Your task to perform on an android device: all mails in gmail Image 0: 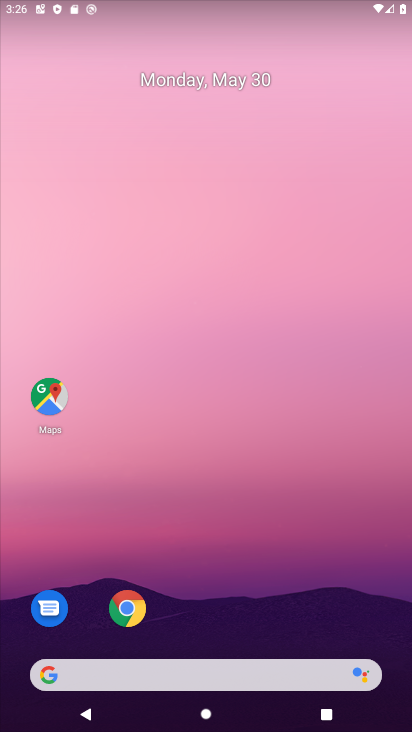
Step 0: drag from (233, 567) to (227, 259)
Your task to perform on an android device: all mails in gmail Image 1: 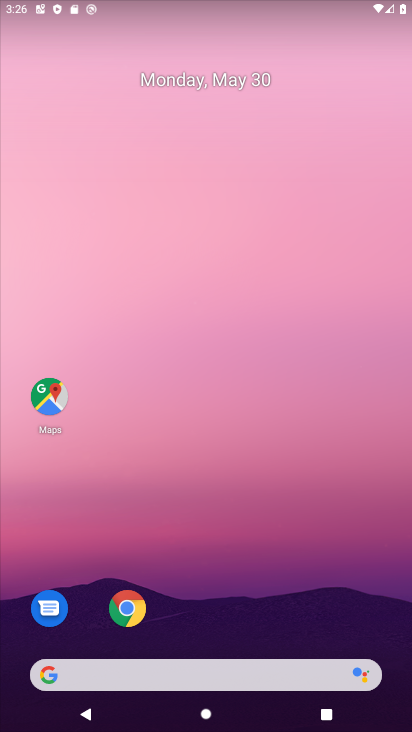
Step 1: drag from (241, 603) to (209, 129)
Your task to perform on an android device: all mails in gmail Image 2: 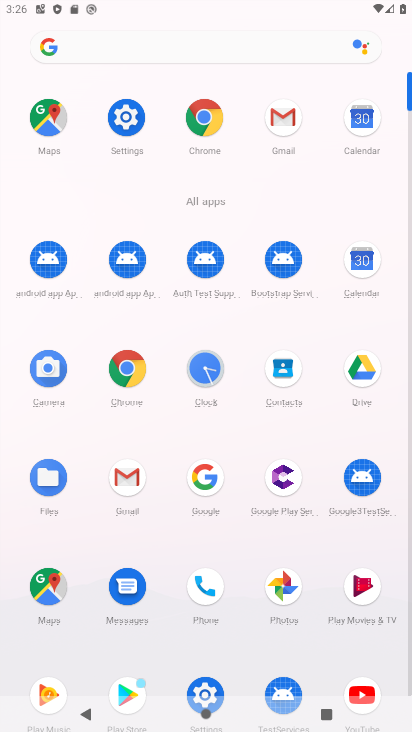
Step 2: click (135, 472)
Your task to perform on an android device: all mails in gmail Image 3: 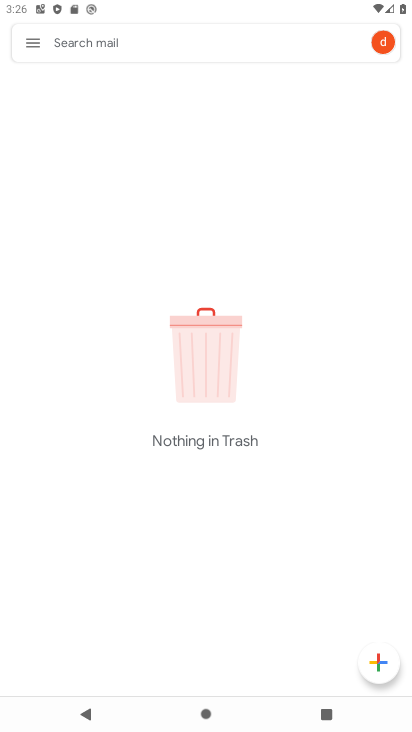
Step 3: click (33, 39)
Your task to perform on an android device: all mails in gmail Image 4: 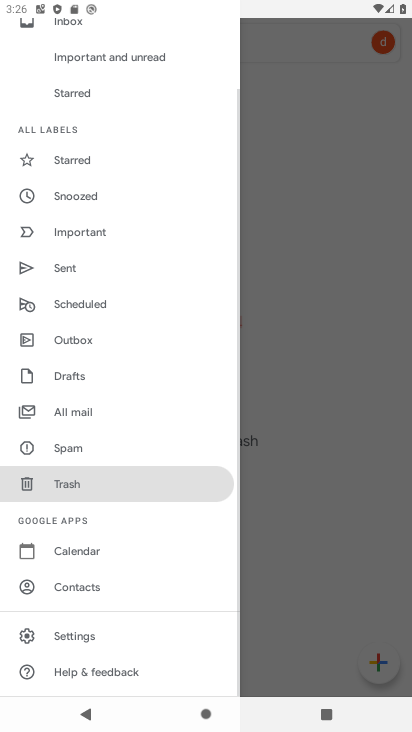
Step 4: click (93, 416)
Your task to perform on an android device: all mails in gmail Image 5: 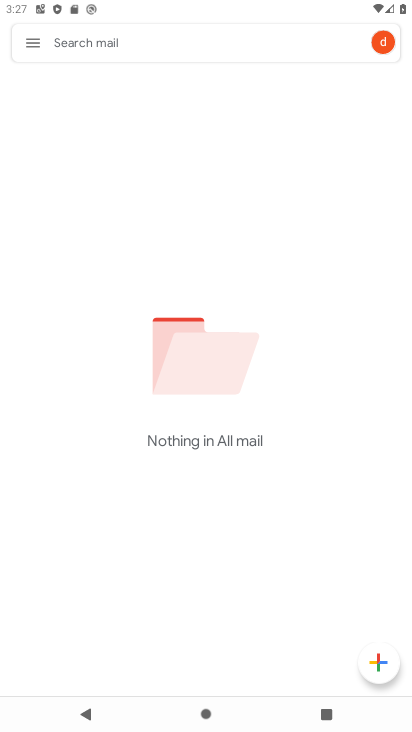
Step 5: task complete